Your task to perform on an android device: toggle priority inbox in the gmail app Image 0: 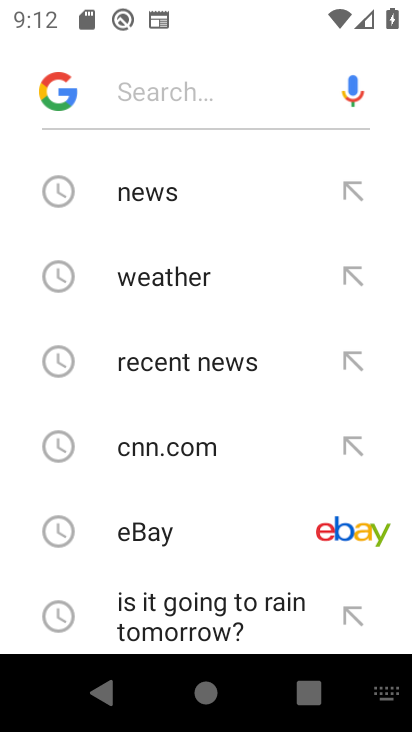
Step 0: press home button
Your task to perform on an android device: toggle priority inbox in the gmail app Image 1: 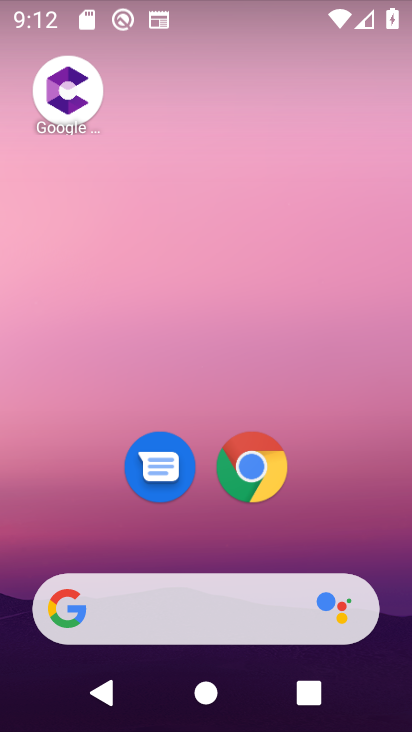
Step 1: drag from (343, 495) to (290, 16)
Your task to perform on an android device: toggle priority inbox in the gmail app Image 2: 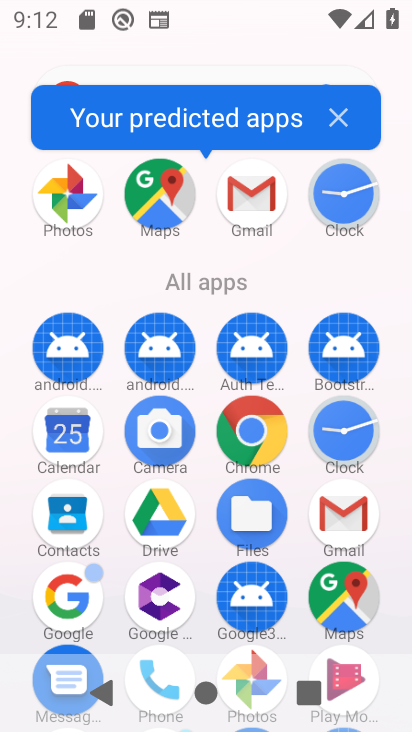
Step 2: click (261, 182)
Your task to perform on an android device: toggle priority inbox in the gmail app Image 3: 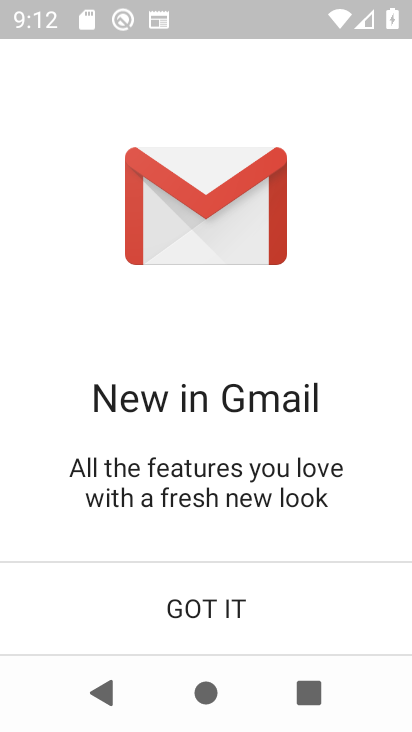
Step 3: click (264, 618)
Your task to perform on an android device: toggle priority inbox in the gmail app Image 4: 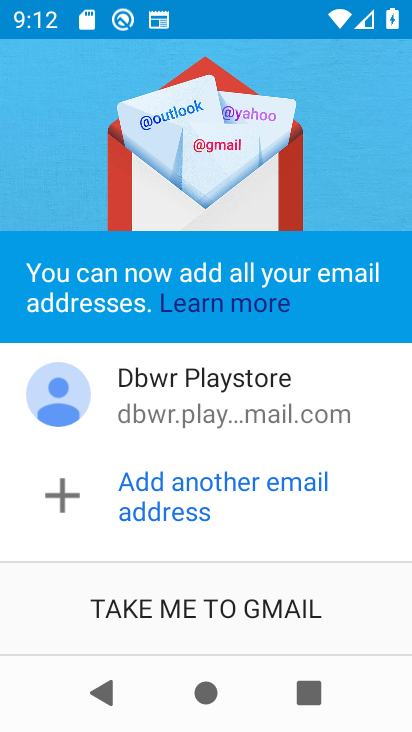
Step 4: click (202, 615)
Your task to perform on an android device: toggle priority inbox in the gmail app Image 5: 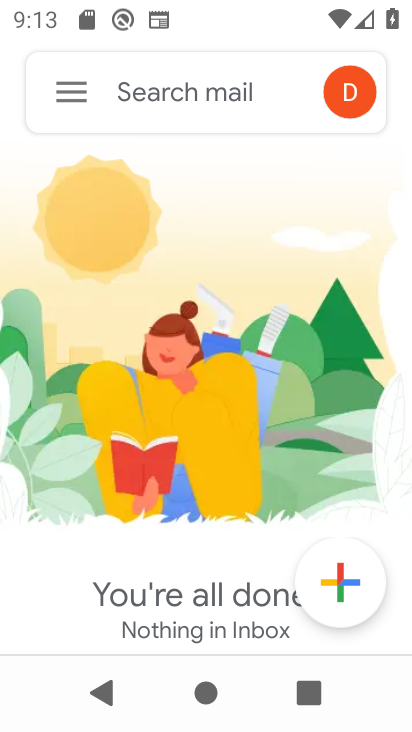
Step 5: click (74, 83)
Your task to perform on an android device: toggle priority inbox in the gmail app Image 6: 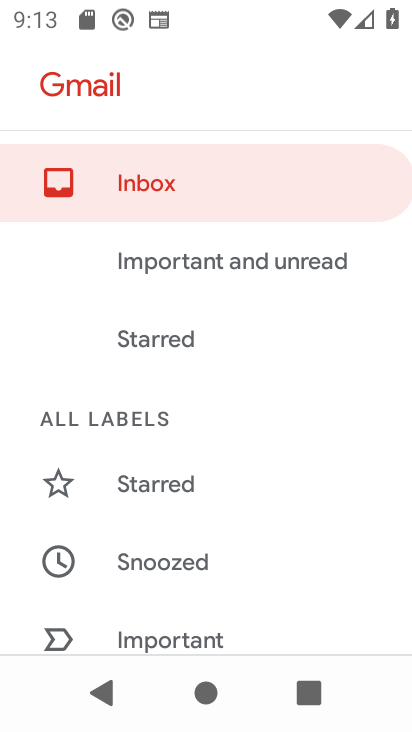
Step 6: drag from (214, 625) to (328, 42)
Your task to perform on an android device: toggle priority inbox in the gmail app Image 7: 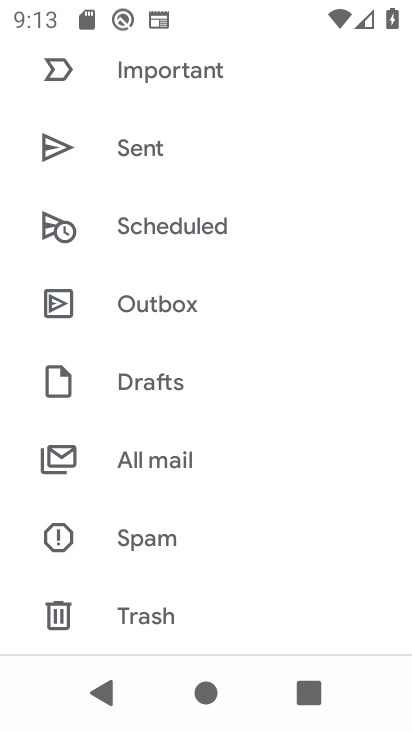
Step 7: drag from (241, 555) to (380, 67)
Your task to perform on an android device: toggle priority inbox in the gmail app Image 8: 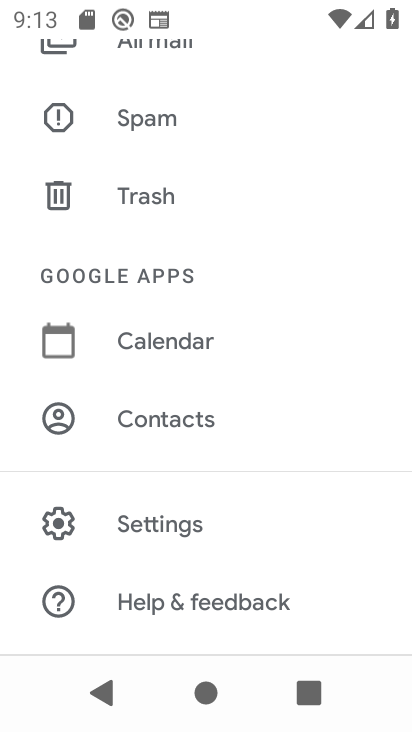
Step 8: click (204, 512)
Your task to perform on an android device: toggle priority inbox in the gmail app Image 9: 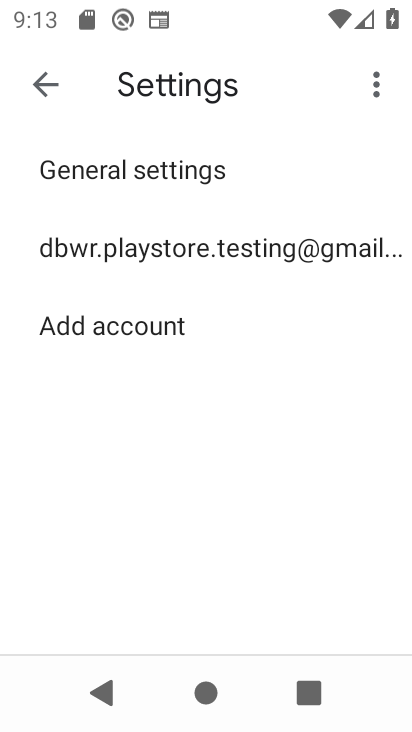
Step 9: click (176, 246)
Your task to perform on an android device: toggle priority inbox in the gmail app Image 10: 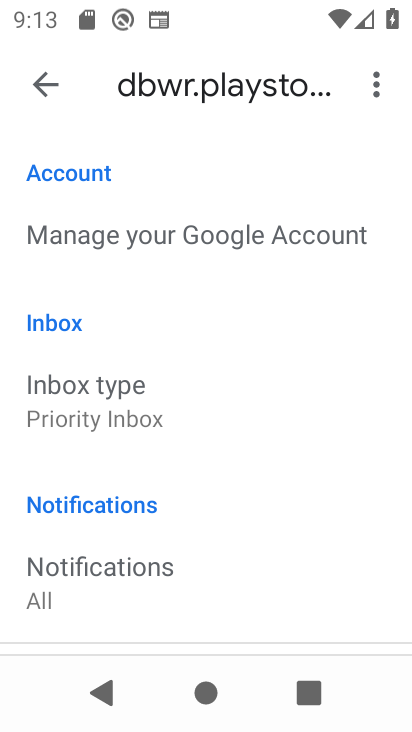
Step 10: click (137, 406)
Your task to perform on an android device: toggle priority inbox in the gmail app Image 11: 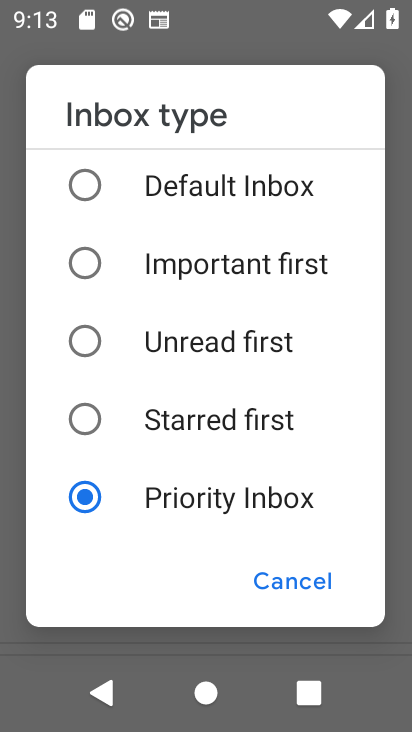
Step 11: click (161, 187)
Your task to perform on an android device: toggle priority inbox in the gmail app Image 12: 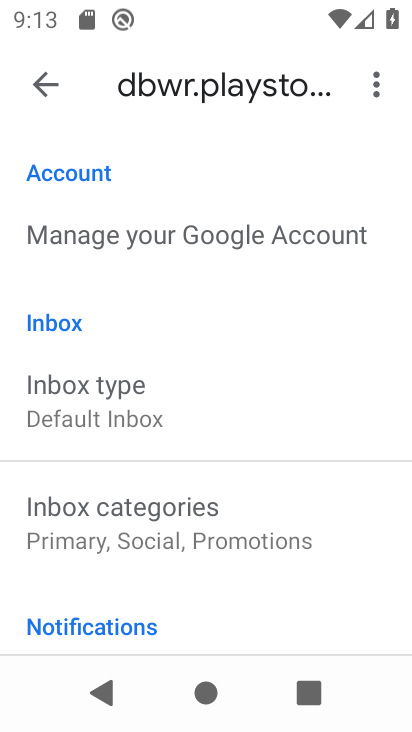
Step 12: task complete